Your task to perform on an android device: stop showing notifications on the lock screen Image 0: 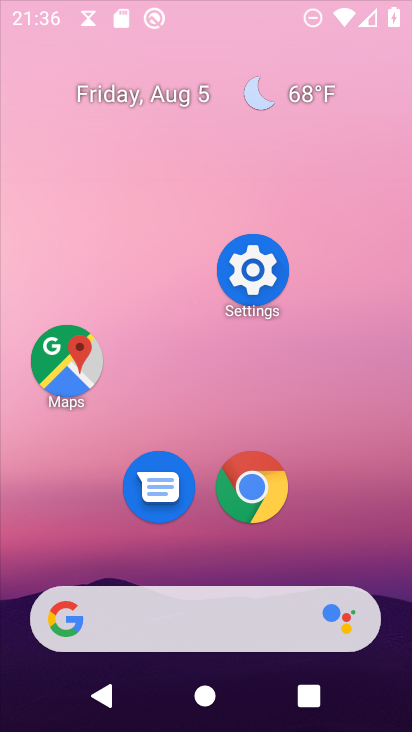
Step 0: press home button
Your task to perform on an android device: stop showing notifications on the lock screen Image 1: 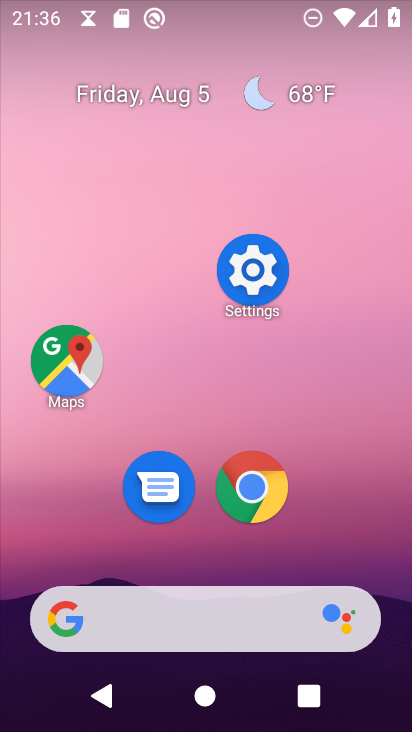
Step 1: click (255, 272)
Your task to perform on an android device: stop showing notifications on the lock screen Image 2: 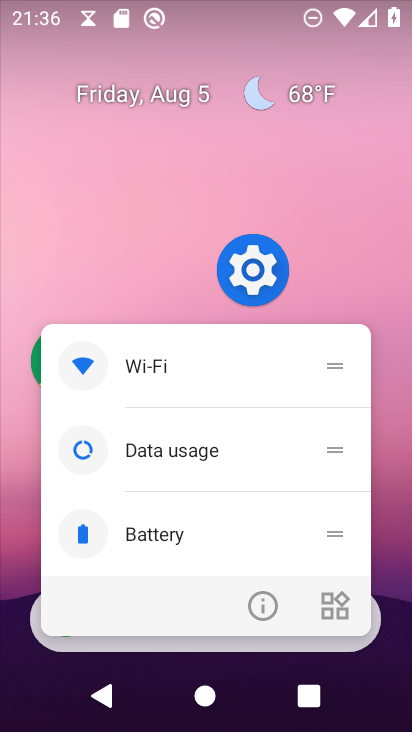
Step 2: click (255, 272)
Your task to perform on an android device: stop showing notifications on the lock screen Image 3: 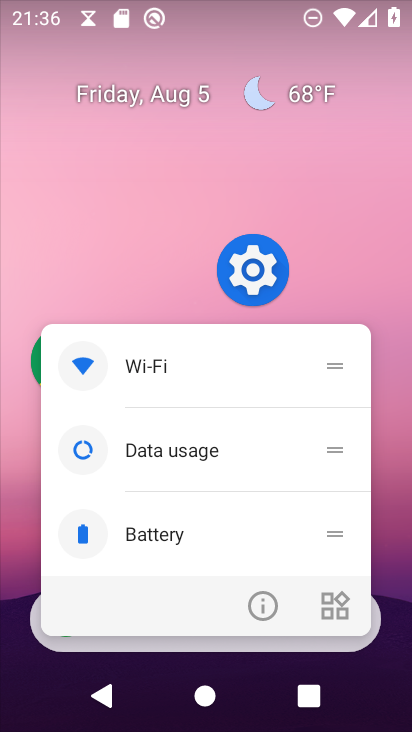
Step 3: click (255, 272)
Your task to perform on an android device: stop showing notifications on the lock screen Image 4: 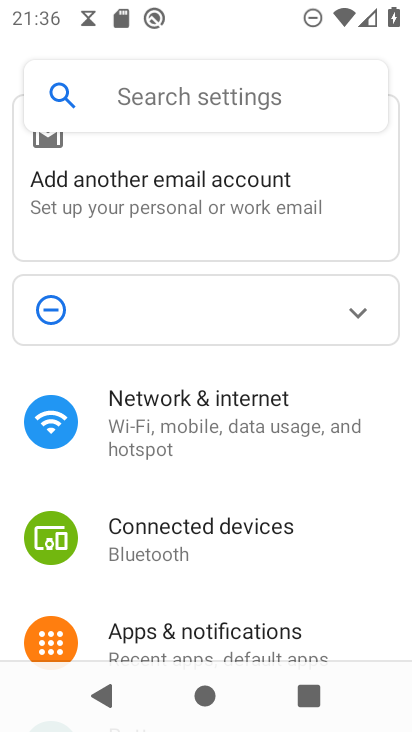
Step 4: drag from (221, 590) to (252, 276)
Your task to perform on an android device: stop showing notifications on the lock screen Image 5: 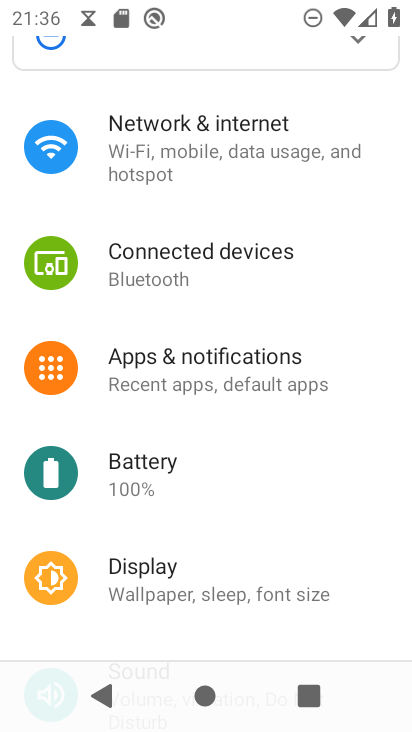
Step 5: click (209, 360)
Your task to perform on an android device: stop showing notifications on the lock screen Image 6: 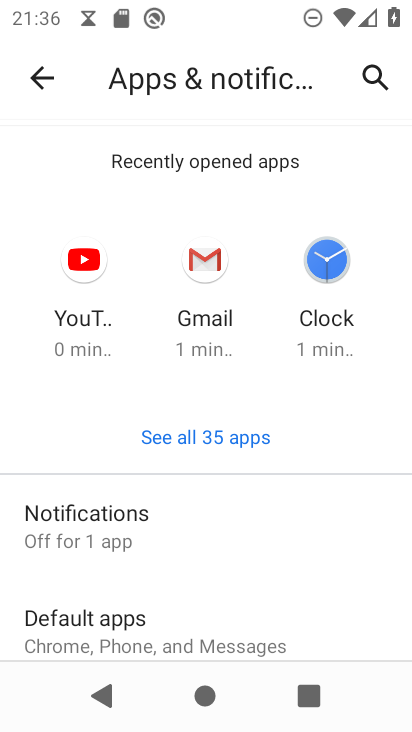
Step 6: click (94, 514)
Your task to perform on an android device: stop showing notifications on the lock screen Image 7: 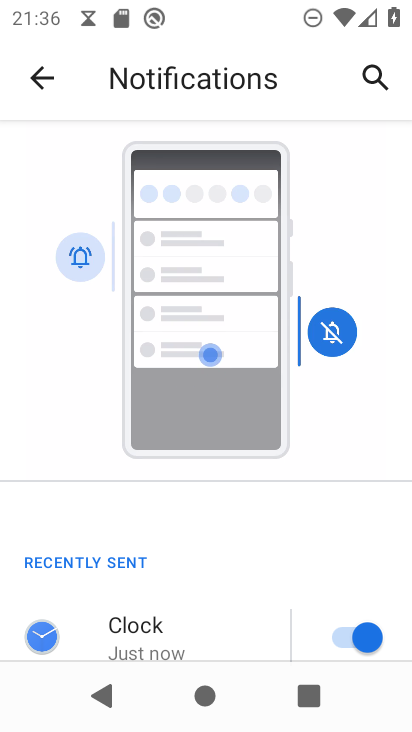
Step 7: drag from (254, 605) to (348, 121)
Your task to perform on an android device: stop showing notifications on the lock screen Image 8: 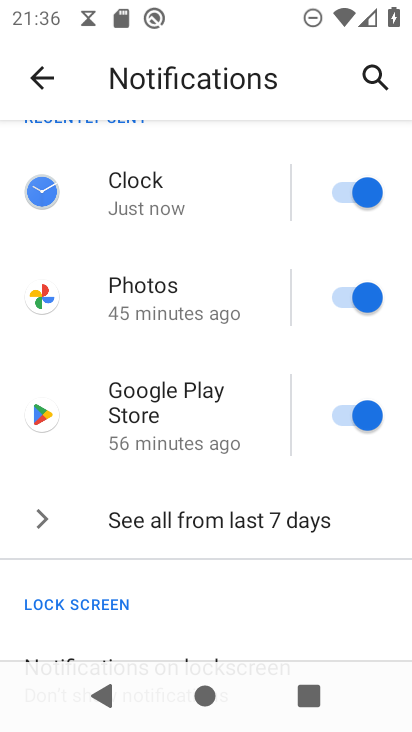
Step 8: drag from (219, 605) to (236, 163)
Your task to perform on an android device: stop showing notifications on the lock screen Image 9: 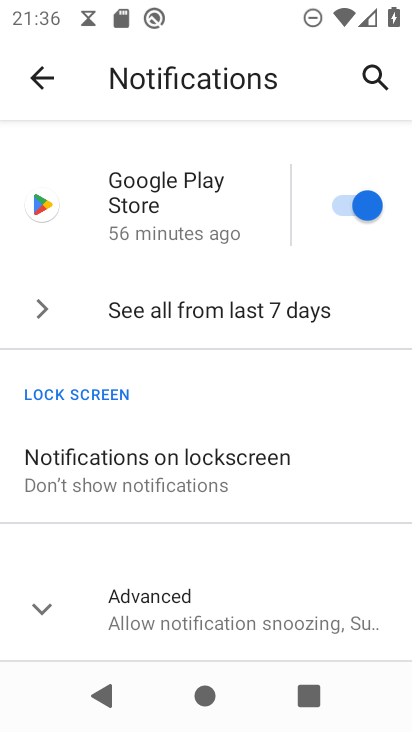
Step 9: click (178, 470)
Your task to perform on an android device: stop showing notifications on the lock screen Image 10: 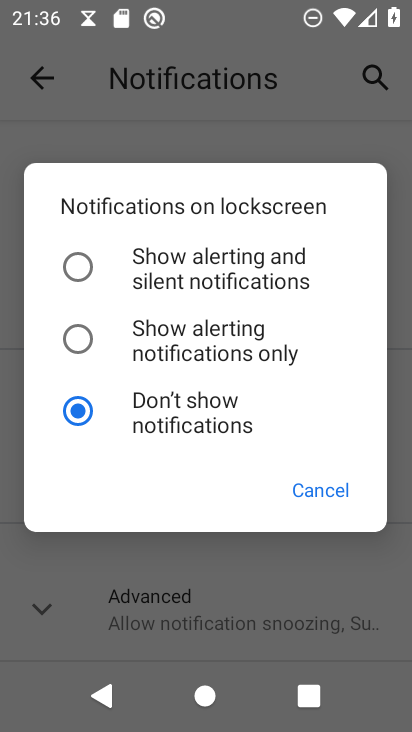
Step 10: task complete